Your task to perform on an android device: toggle sleep mode Image 0: 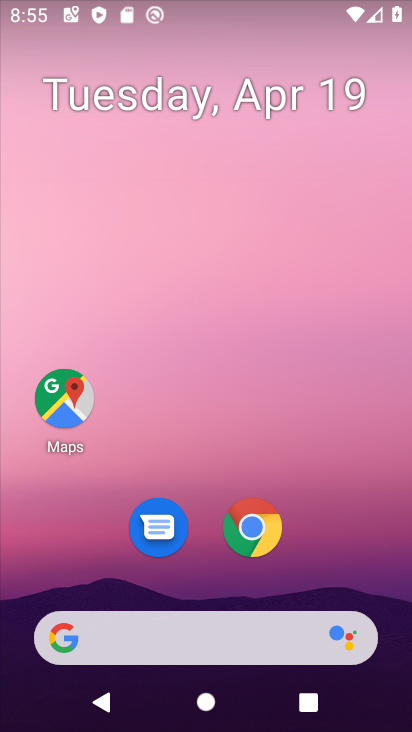
Step 0: drag from (329, 562) to (316, 199)
Your task to perform on an android device: toggle sleep mode Image 1: 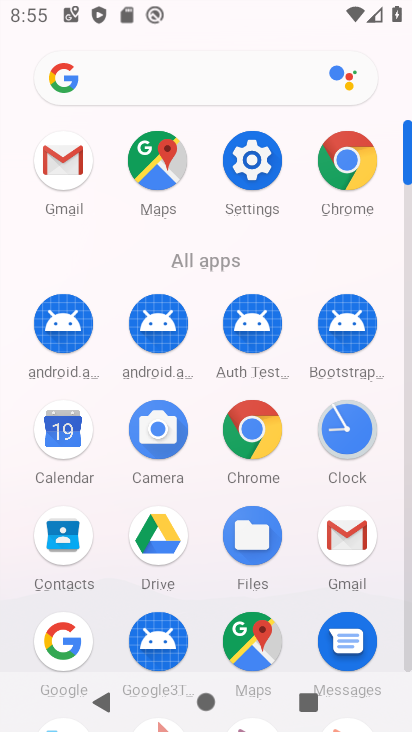
Step 1: click (259, 162)
Your task to perform on an android device: toggle sleep mode Image 2: 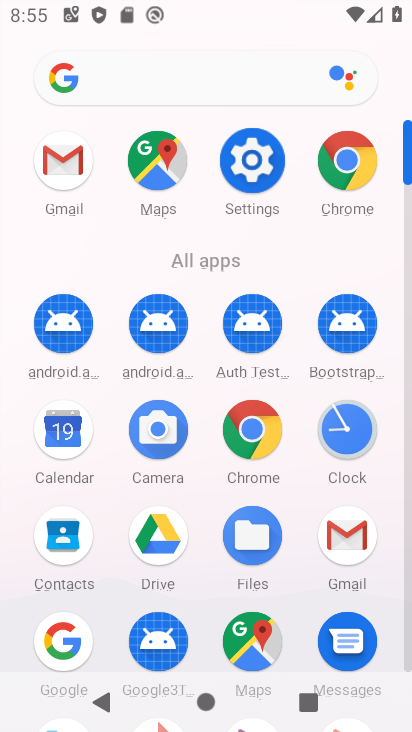
Step 2: click (259, 155)
Your task to perform on an android device: toggle sleep mode Image 3: 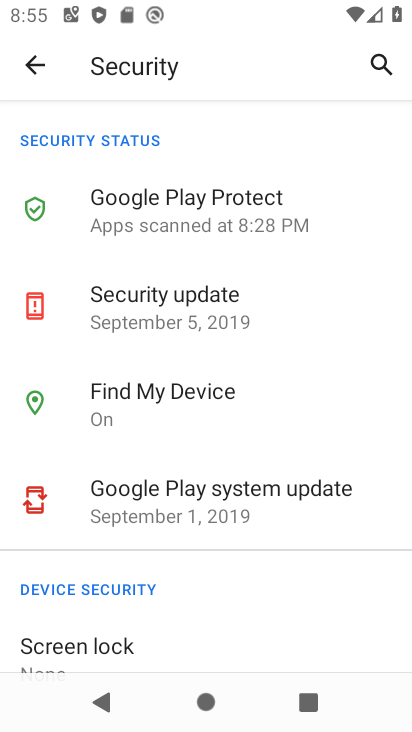
Step 3: click (32, 65)
Your task to perform on an android device: toggle sleep mode Image 4: 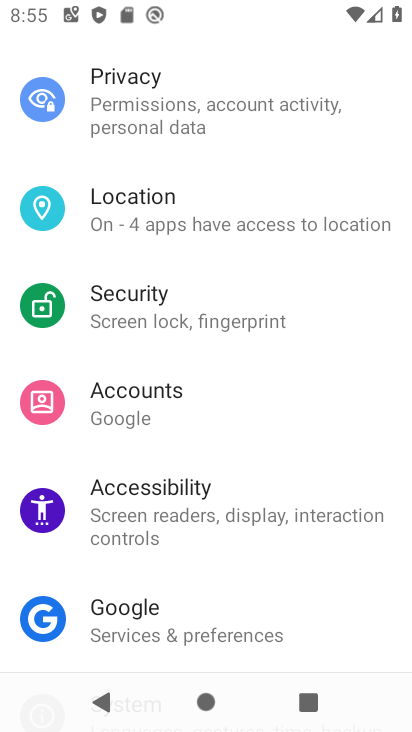
Step 4: task complete